Your task to perform on an android device: How much does a 3 bedroom apartment rent for in Seattle? Image 0: 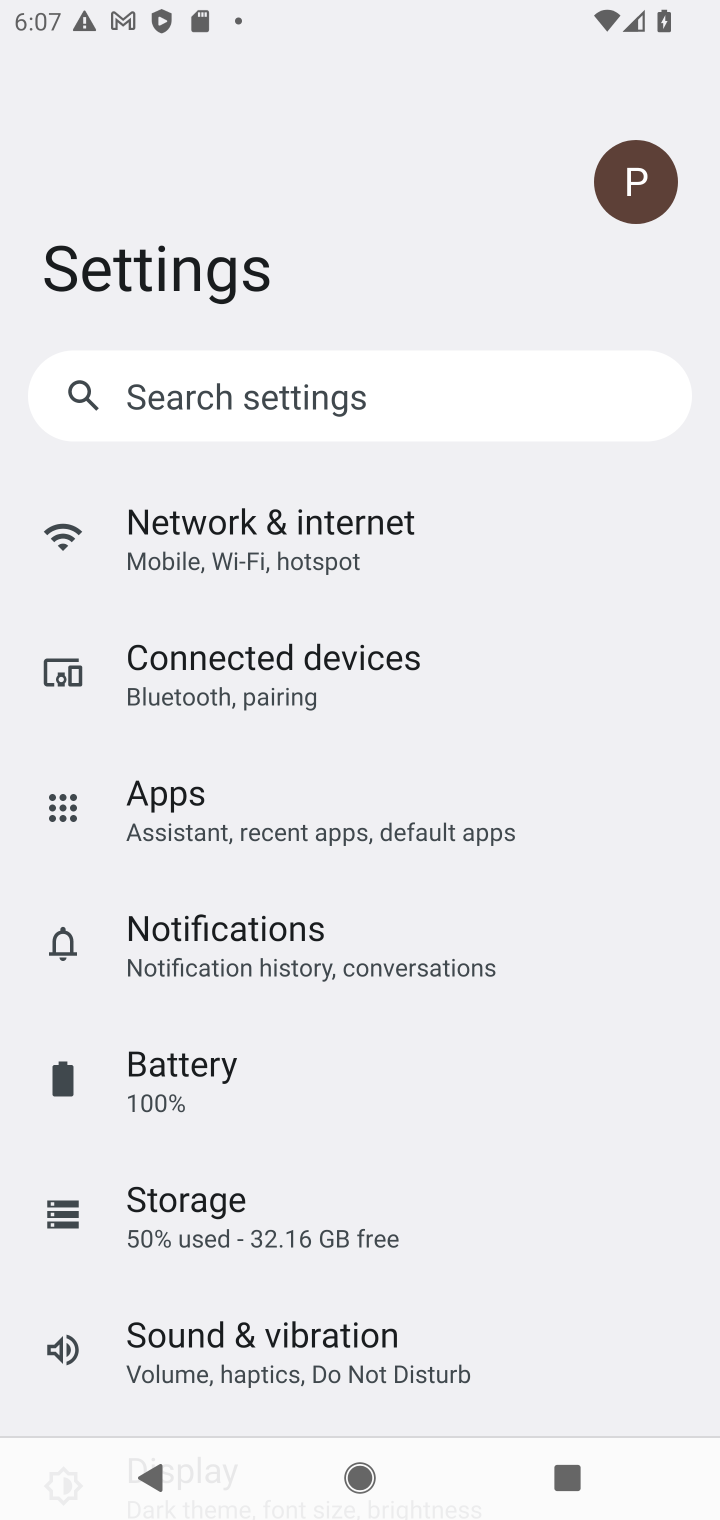
Step 0: press home button
Your task to perform on an android device: How much does a 3 bedroom apartment rent for in Seattle? Image 1: 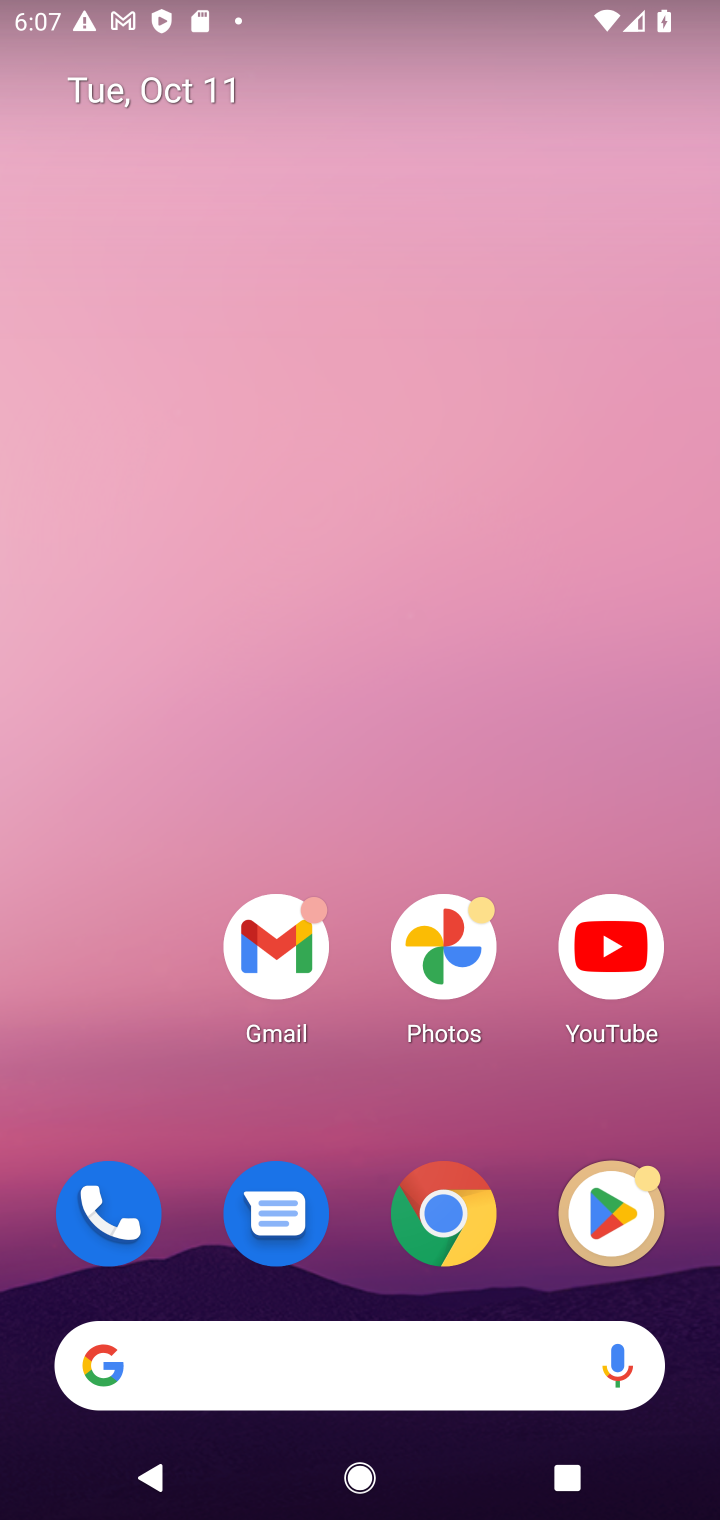
Step 1: click (313, 1351)
Your task to perform on an android device: How much does a 3 bedroom apartment rent for in Seattle? Image 2: 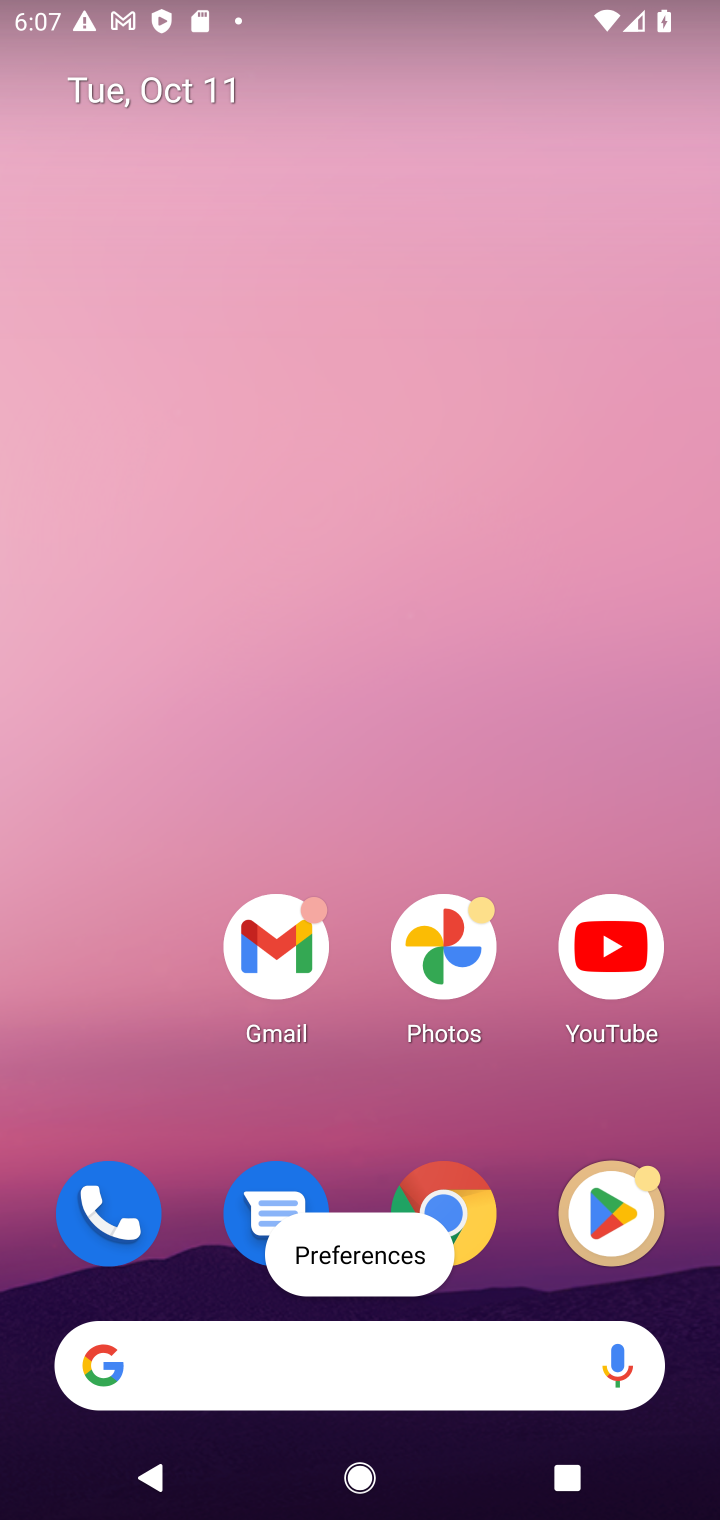
Step 2: click (350, 1380)
Your task to perform on an android device: How much does a 3 bedroom apartment rent for in Seattle? Image 3: 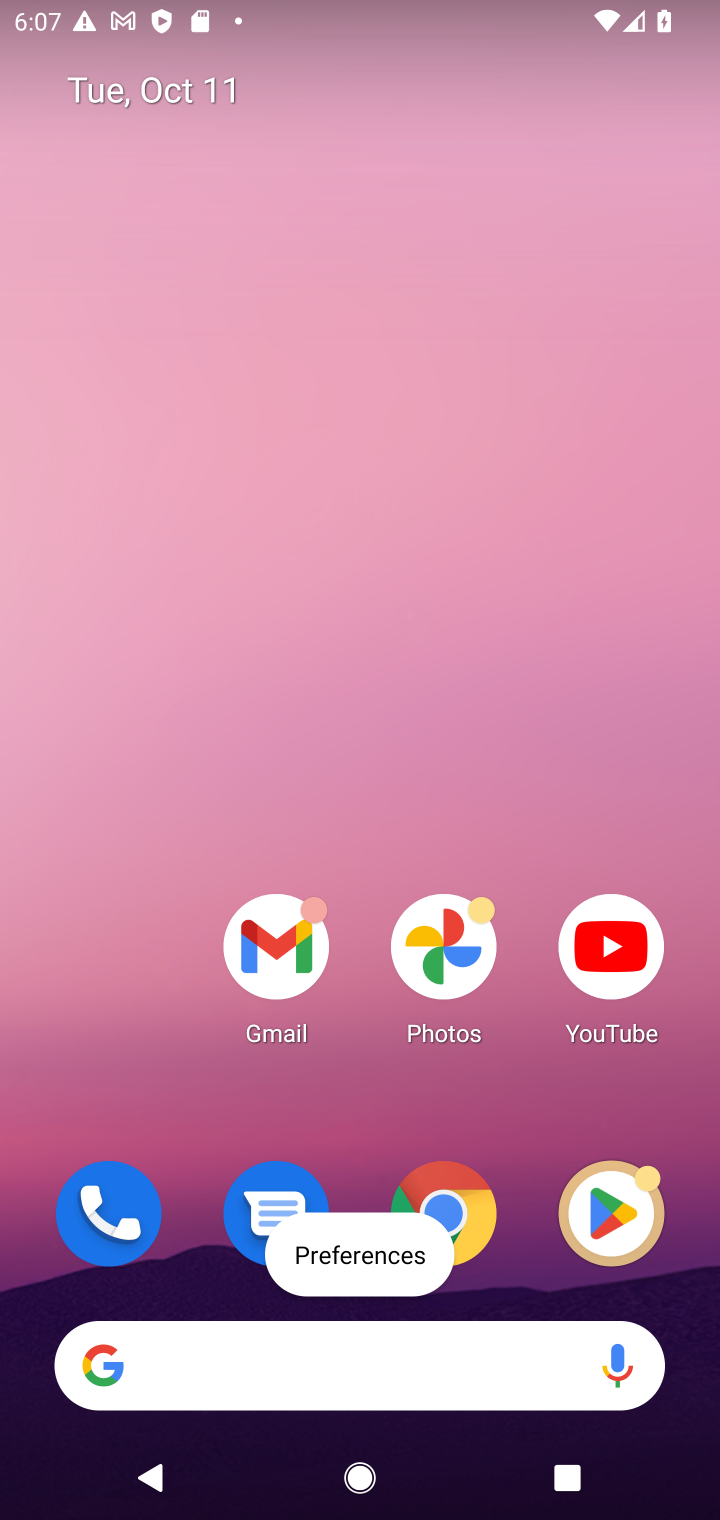
Step 3: click (123, 1352)
Your task to perform on an android device: How much does a 3 bedroom apartment rent for in Seattle? Image 4: 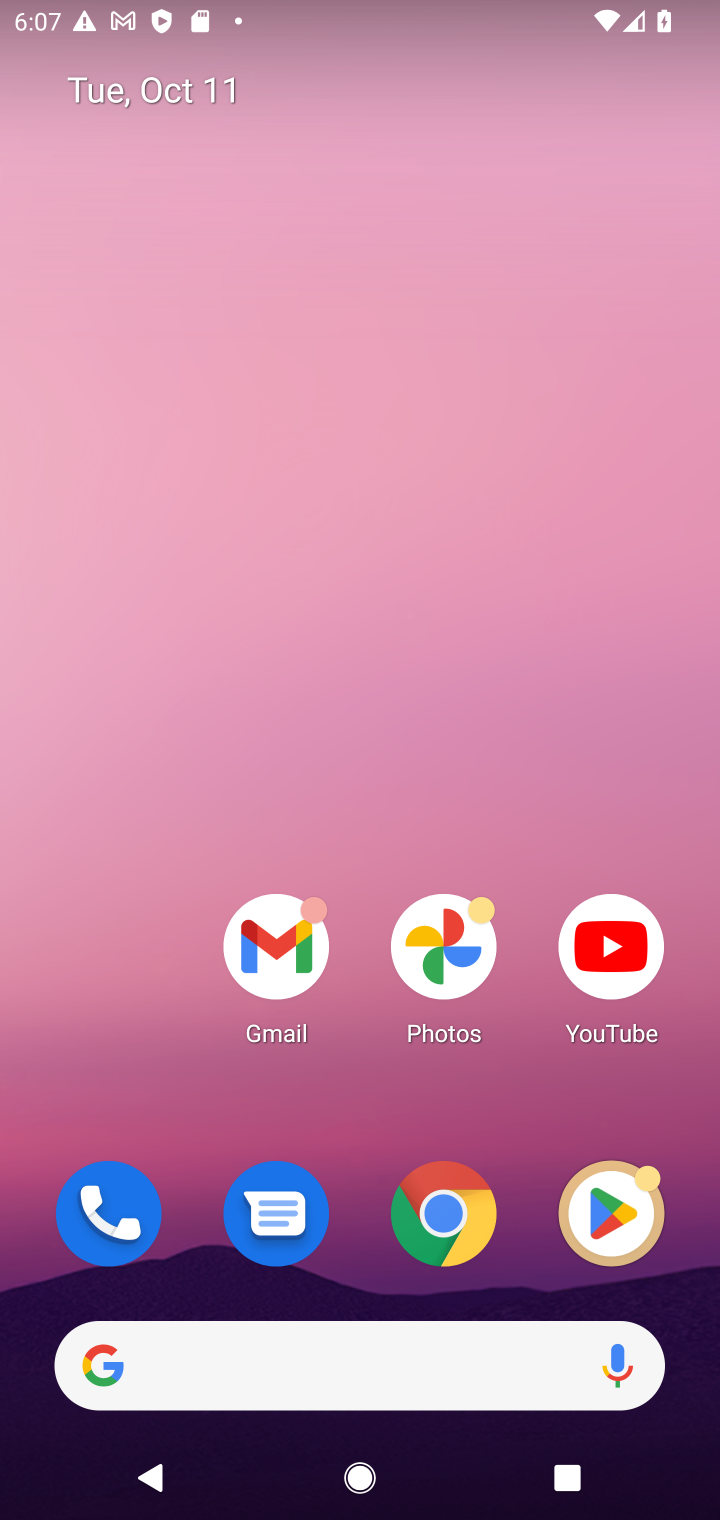
Step 4: drag from (239, 1339) to (317, 569)
Your task to perform on an android device: How much does a 3 bedroom apartment rent for in Seattle? Image 5: 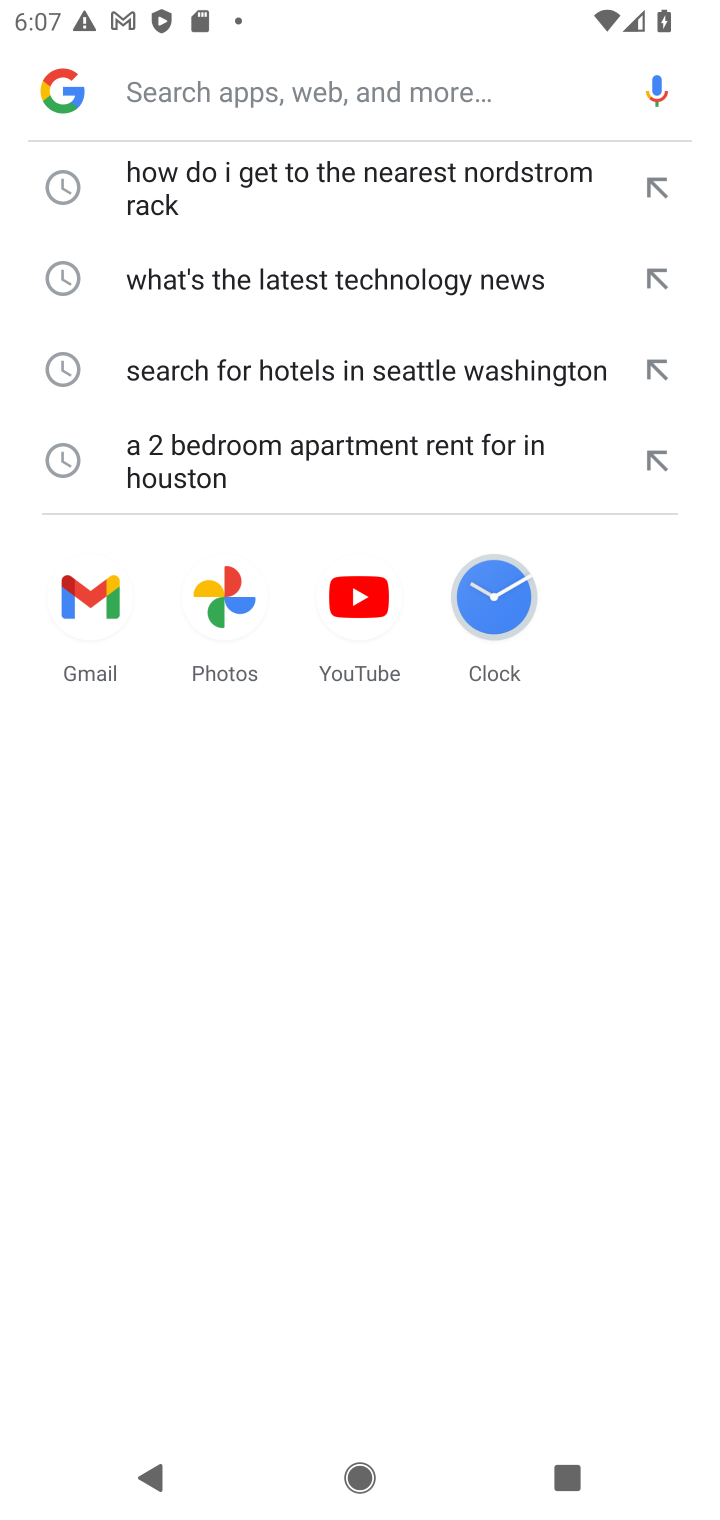
Step 5: type "How much does a 3 bedroom apartment rent for in Seattle?"
Your task to perform on an android device: How much does a 3 bedroom apartment rent for in Seattle? Image 6: 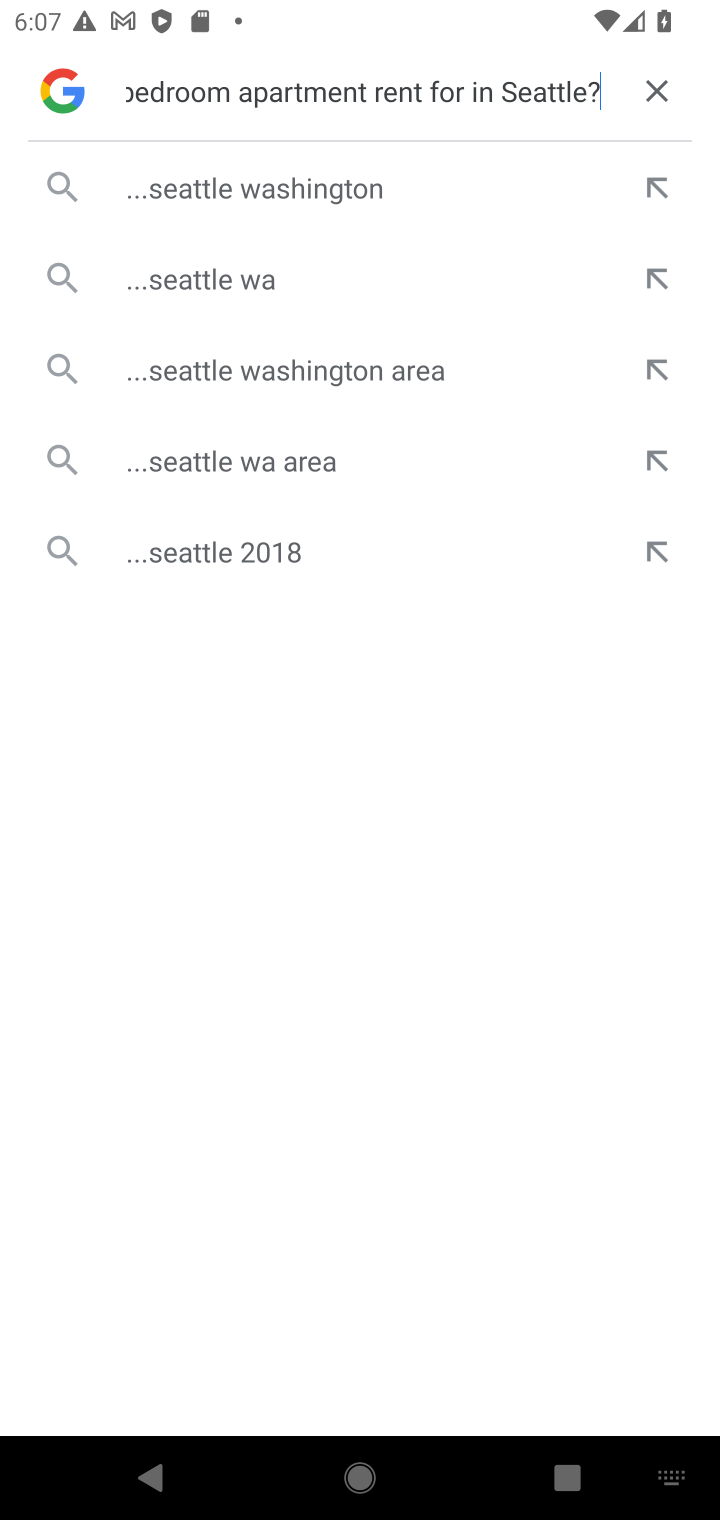
Step 6: click (247, 200)
Your task to perform on an android device: How much does a 3 bedroom apartment rent for in Seattle? Image 7: 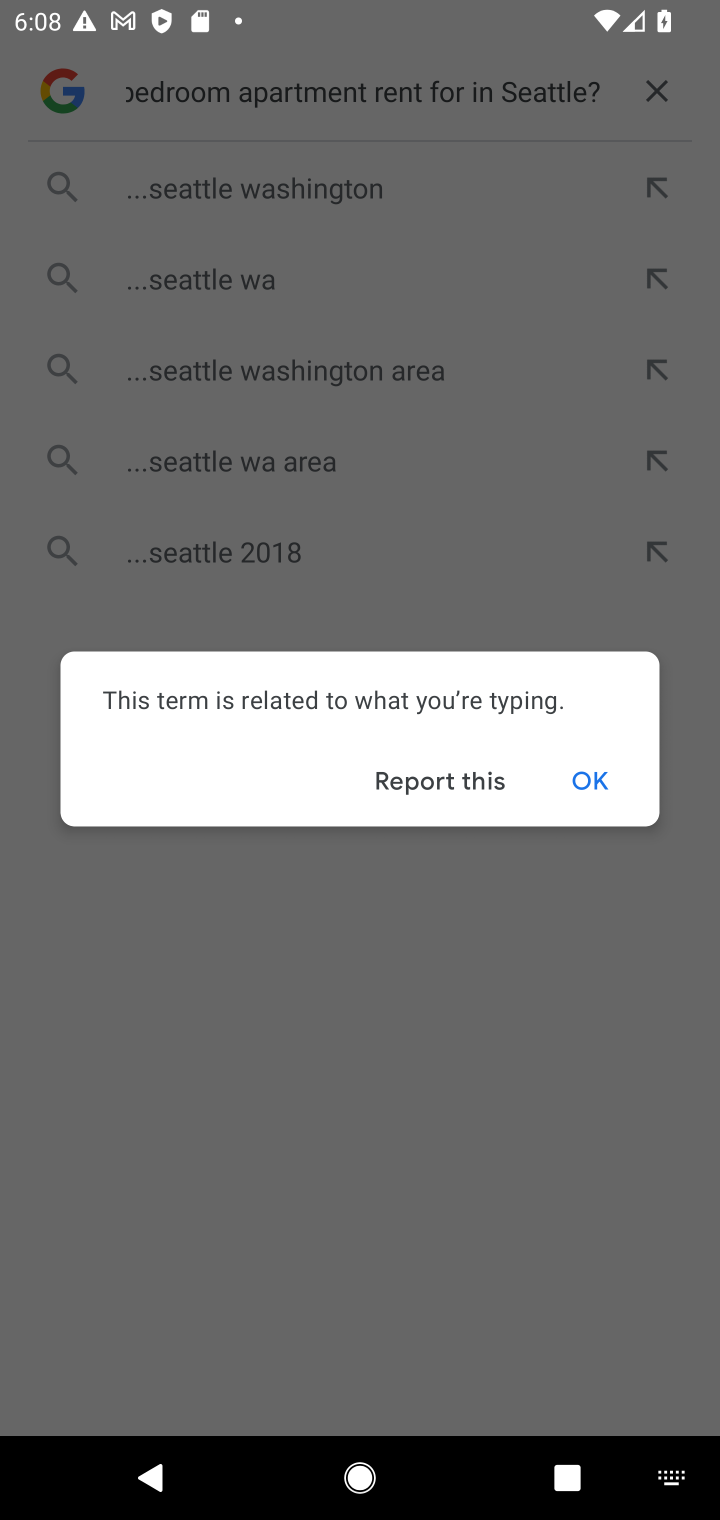
Step 7: click (592, 779)
Your task to perform on an android device: How much does a 3 bedroom apartment rent for in Seattle? Image 8: 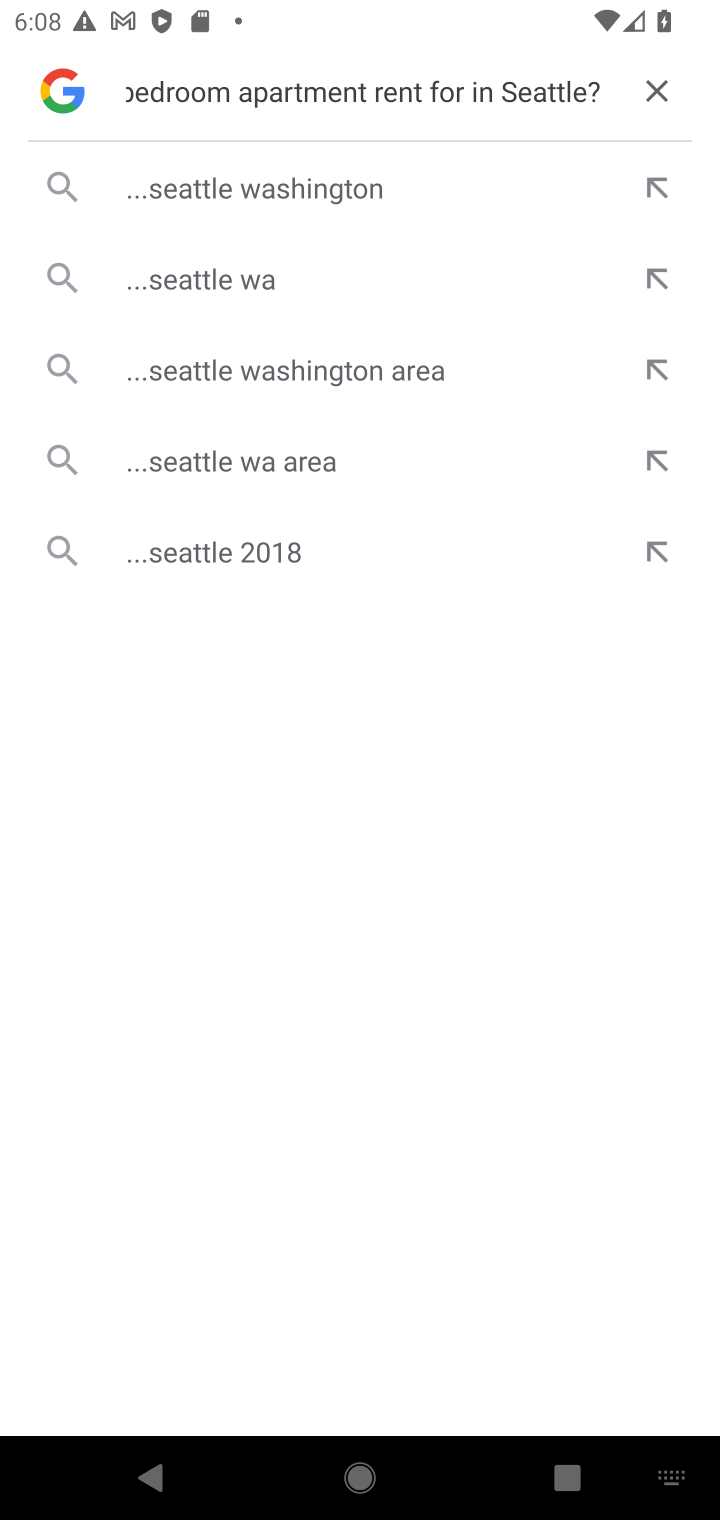
Step 8: click (340, 196)
Your task to perform on an android device: How much does a 3 bedroom apartment rent for in Seattle? Image 9: 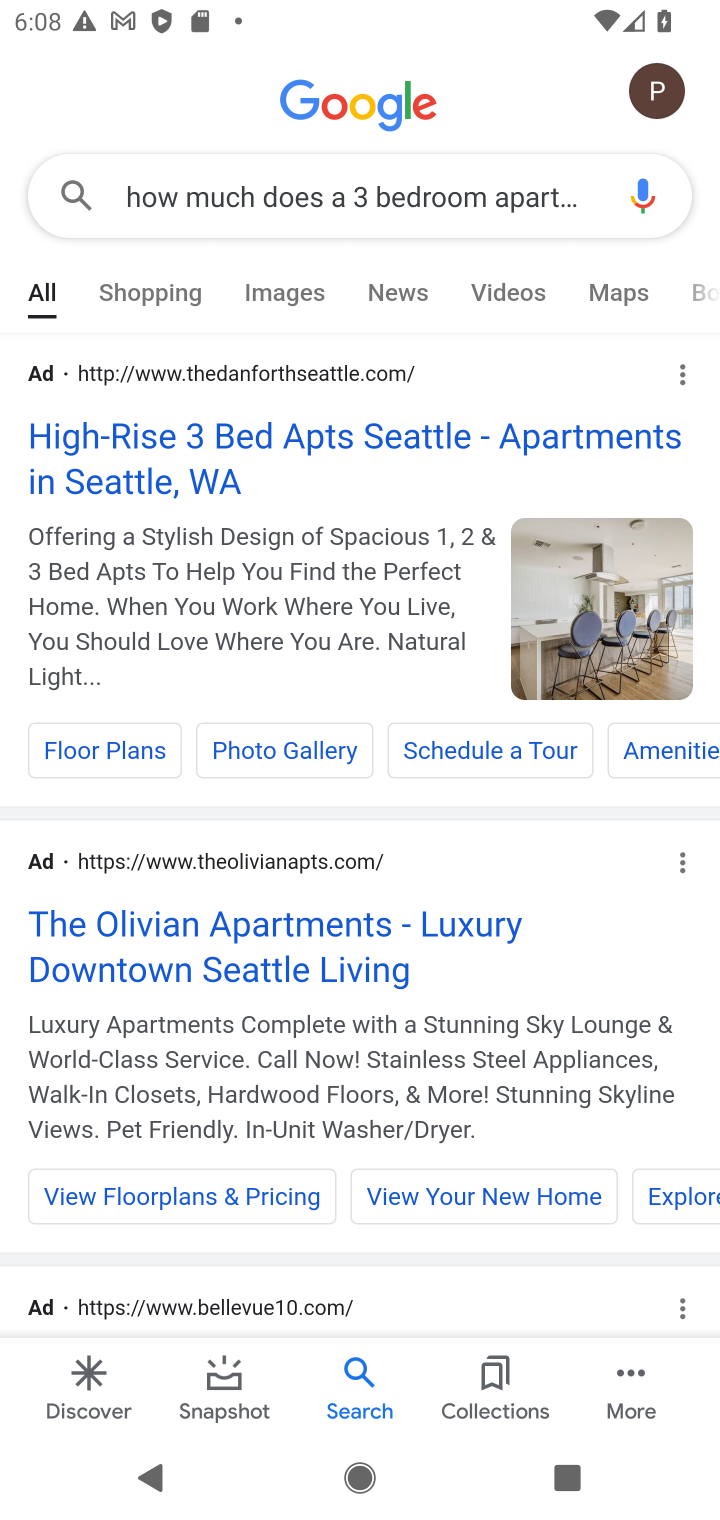
Step 9: click (284, 444)
Your task to perform on an android device: How much does a 3 bedroom apartment rent for in Seattle? Image 10: 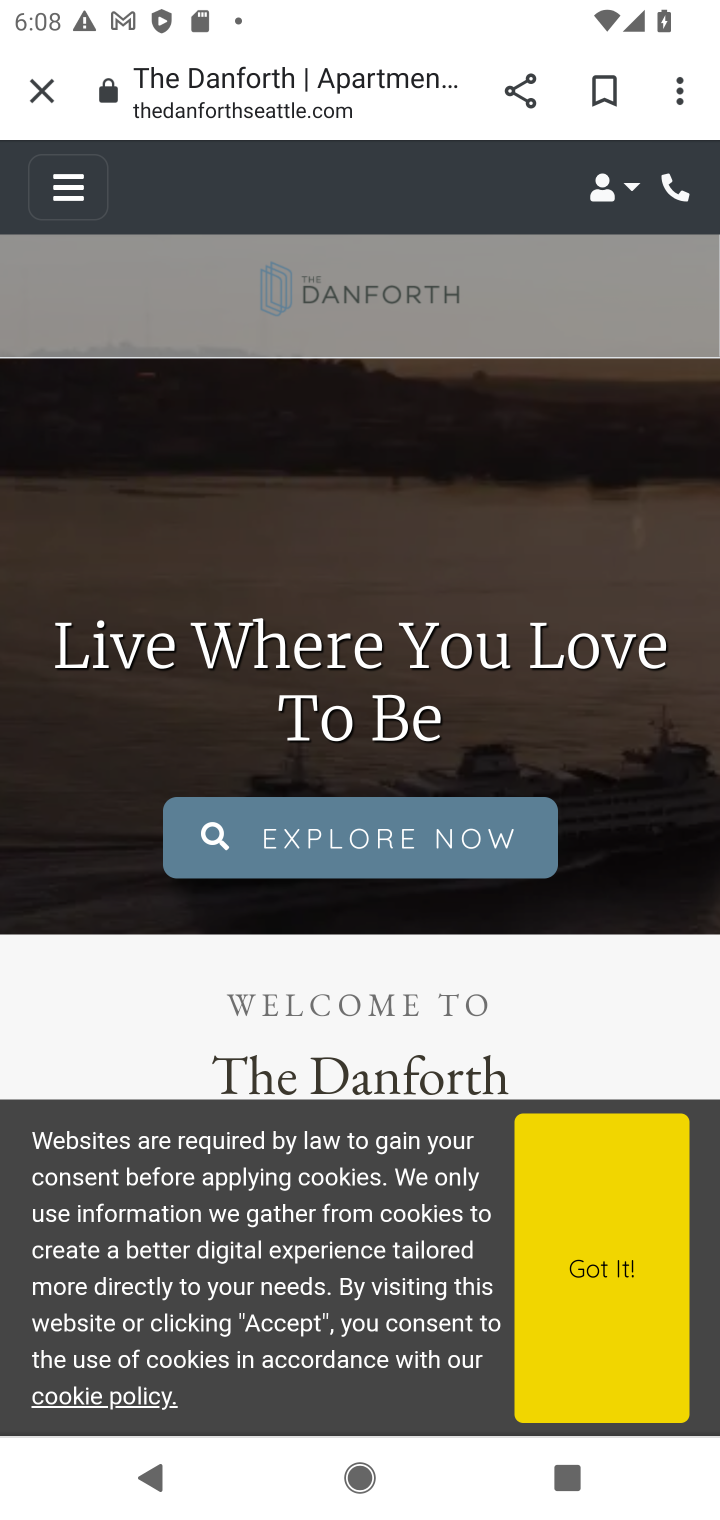
Step 10: task complete